Your task to perform on an android device: change alarm snooze length Image 0: 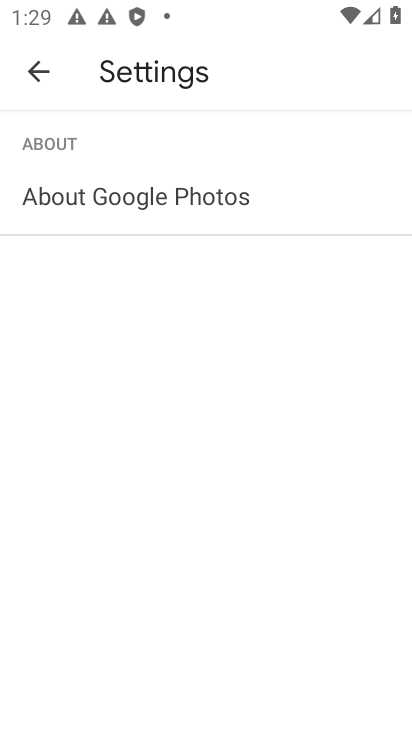
Step 0: press home button
Your task to perform on an android device: change alarm snooze length Image 1: 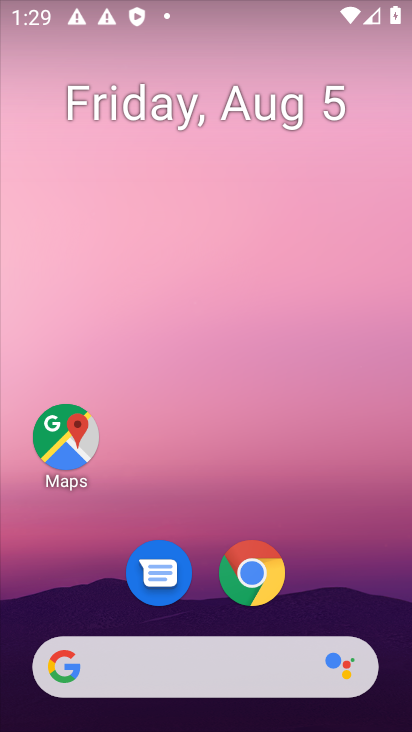
Step 1: drag from (341, 550) to (354, 162)
Your task to perform on an android device: change alarm snooze length Image 2: 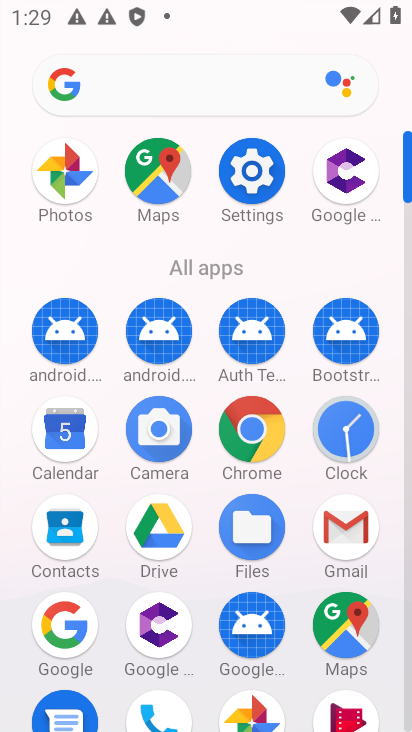
Step 2: click (353, 433)
Your task to perform on an android device: change alarm snooze length Image 3: 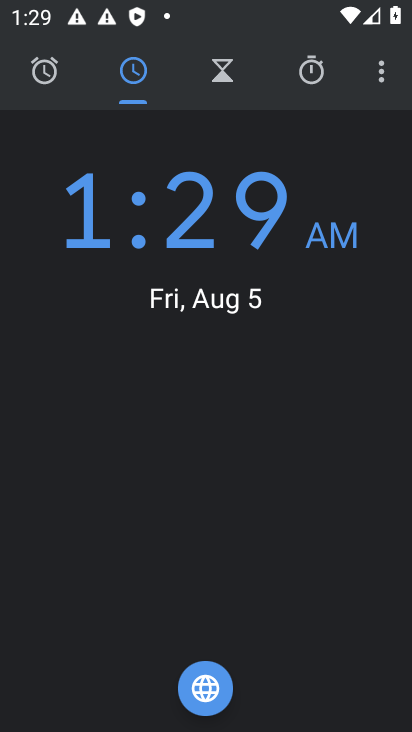
Step 3: click (384, 82)
Your task to perform on an android device: change alarm snooze length Image 4: 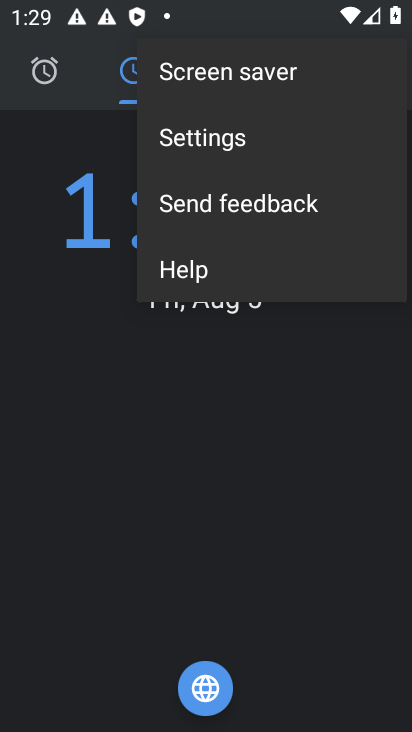
Step 4: click (240, 140)
Your task to perform on an android device: change alarm snooze length Image 5: 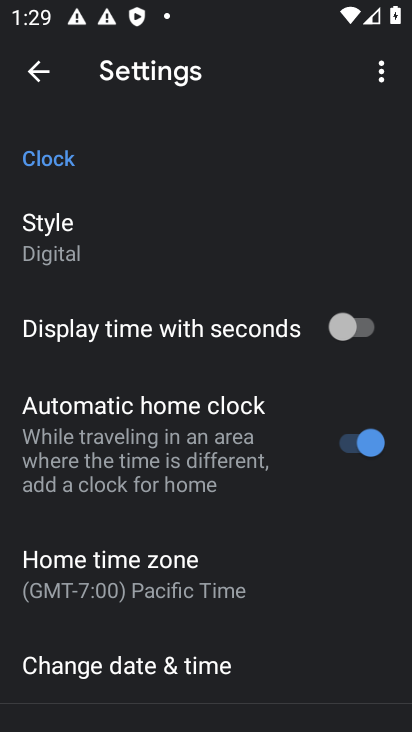
Step 5: drag from (288, 477) to (296, 443)
Your task to perform on an android device: change alarm snooze length Image 6: 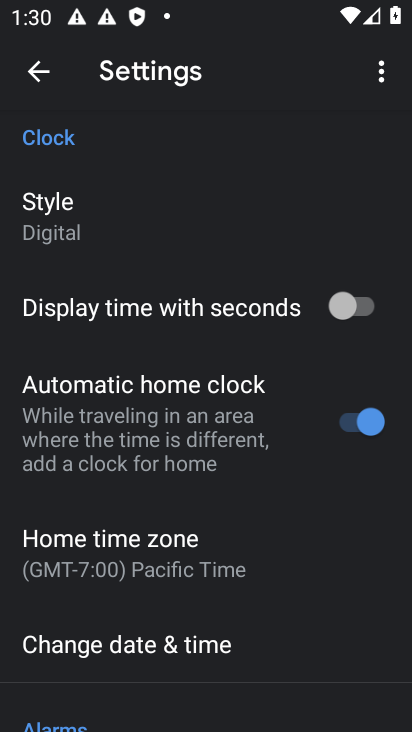
Step 6: drag from (289, 586) to (299, 467)
Your task to perform on an android device: change alarm snooze length Image 7: 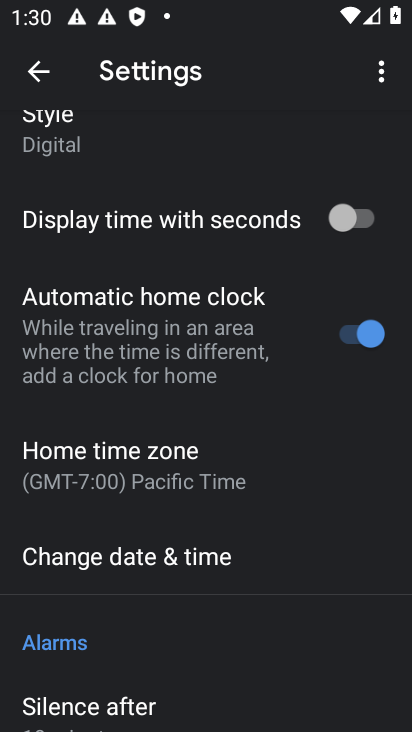
Step 7: drag from (294, 586) to (302, 427)
Your task to perform on an android device: change alarm snooze length Image 8: 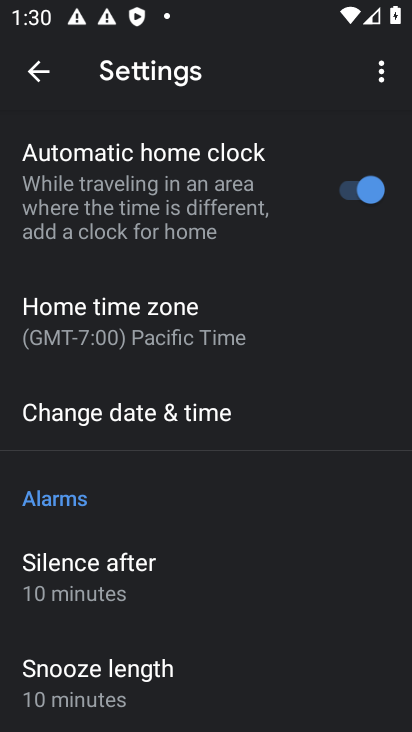
Step 8: drag from (268, 585) to (267, 395)
Your task to perform on an android device: change alarm snooze length Image 9: 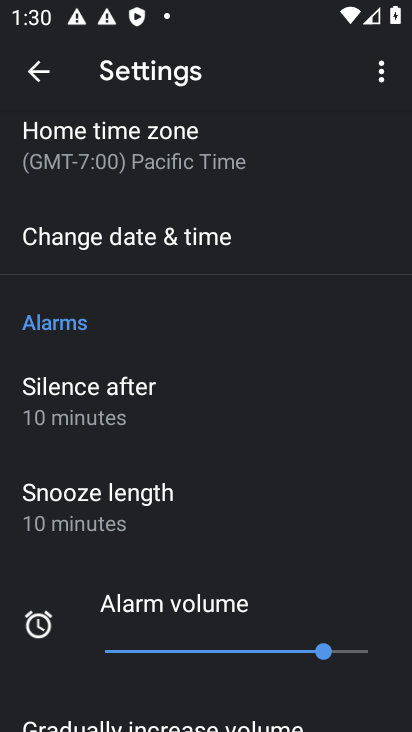
Step 9: drag from (267, 544) to (266, 360)
Your task to perform on an android device: change alarm snooze length Image 10: 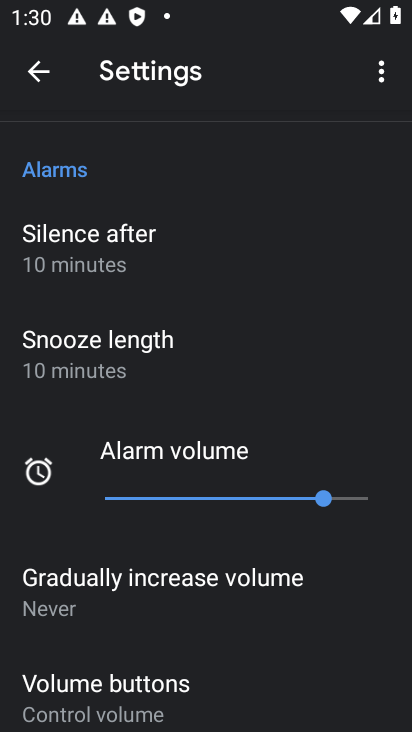
Step 10: click (268, 354)
Your task to perform on an android device: change alarm snooze length Image 11: 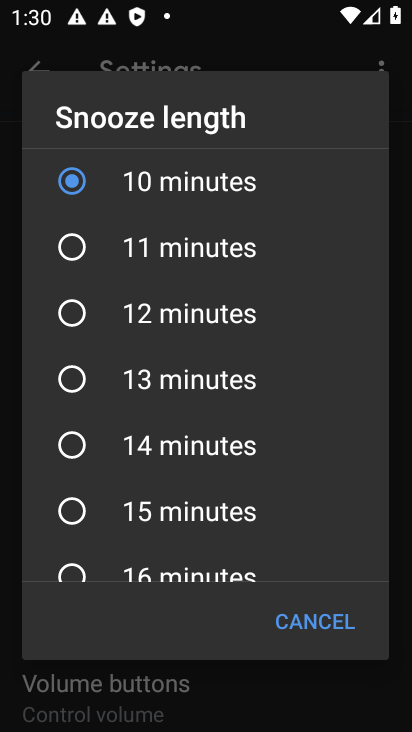
Step 11: click (244, 391)
Your task to perform on an android device: change alarm snooze length Image 12: 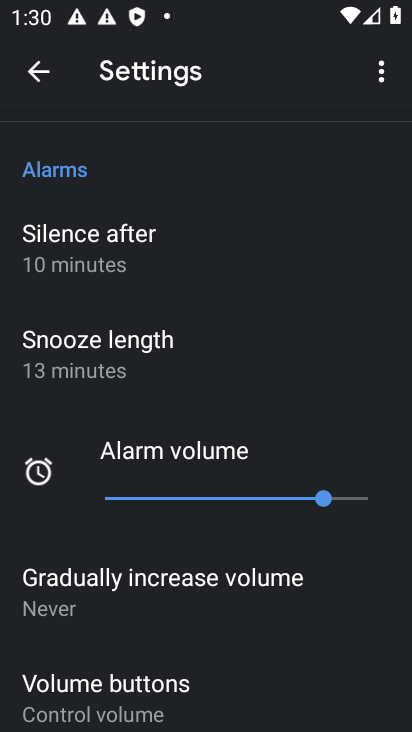
Step 12: task complete